Your task to perform on an android device: empty trash in the gmail app Image 0: 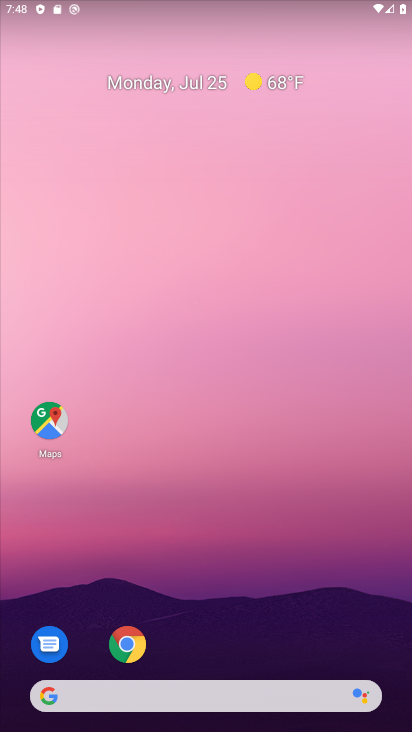
Step 0: click (280, 47)
Your task to perform on an android device: empty trash in the gmail app Image 1: 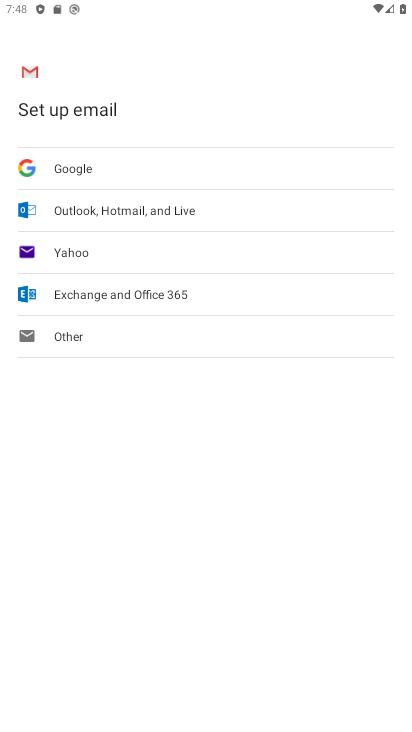
Step 1: press back button
Your task to perform on an android device: empty trash in the gmail app Image 2: 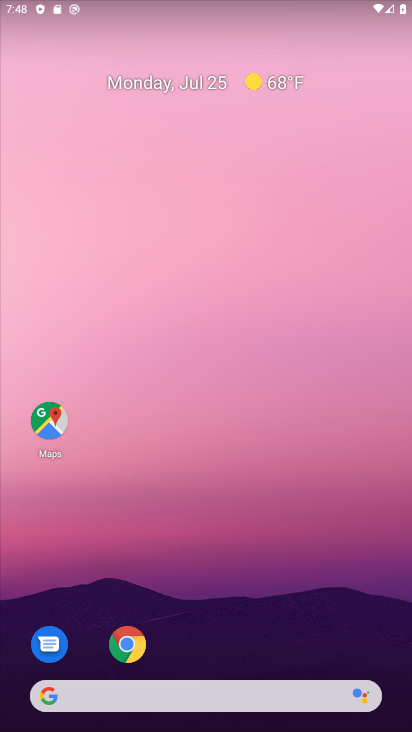
Step 2: drag from (203, 585) to (87, 13)
Your task to perform on an android device: empty trash in the gmail app Image 3: 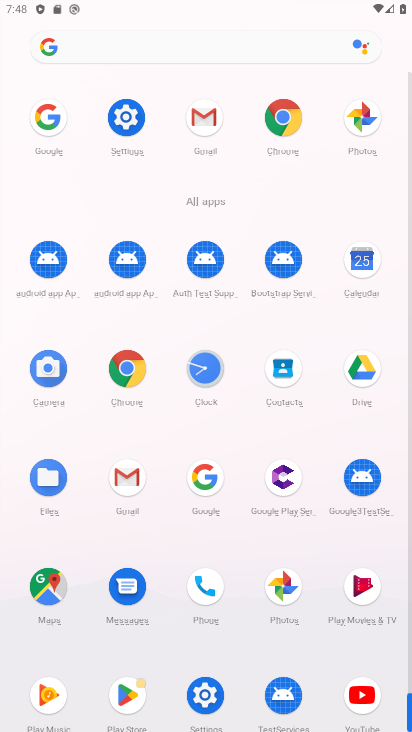
Step 3: click (128, 481)
Your task to perform on an android device: empty trash in the gmail app Image 4: 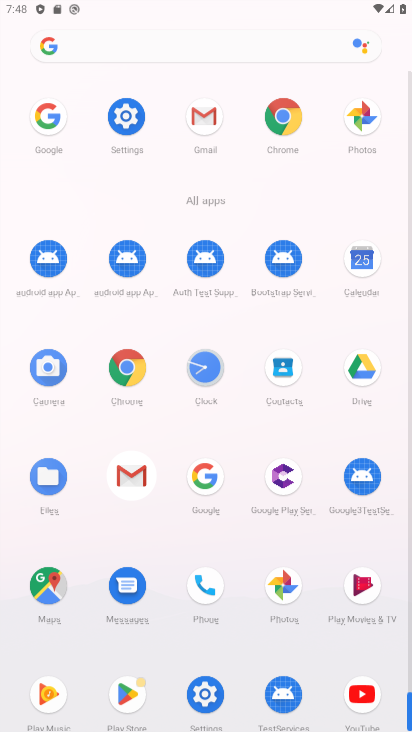
Step 4: click (128, 481)
Your task to perform on an android device: empty trash in the gmail app Image 5: 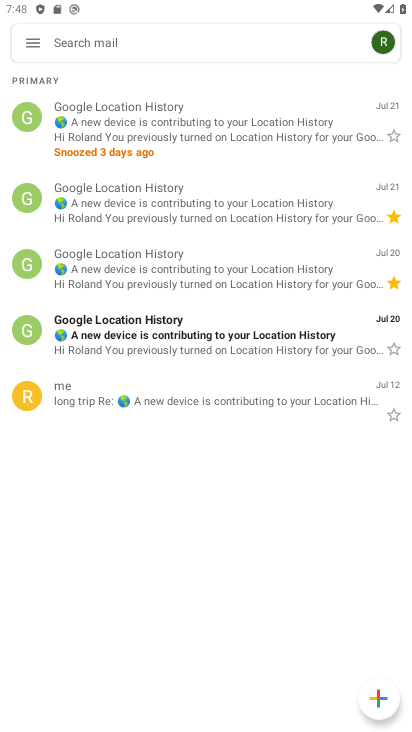
Step 5: click (34, 37)
Your task to perform on an android device: empty trash in the gmail app Image 6: 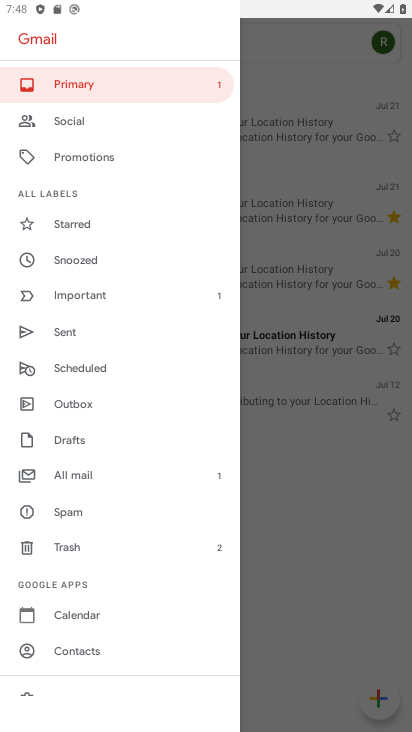
Step 6: click (57, 537)
Your task to perform on an android device: empty trash in the gmail app Image 7: 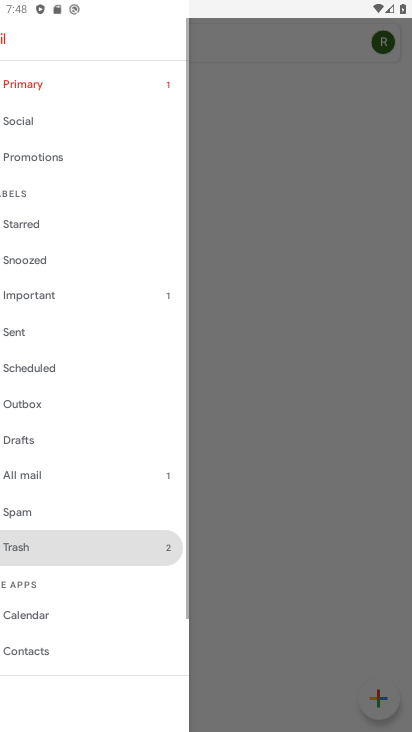
Step 7: click (66, 543)
Your task to perform on an android device: empty trash in the gmail app Image 8: 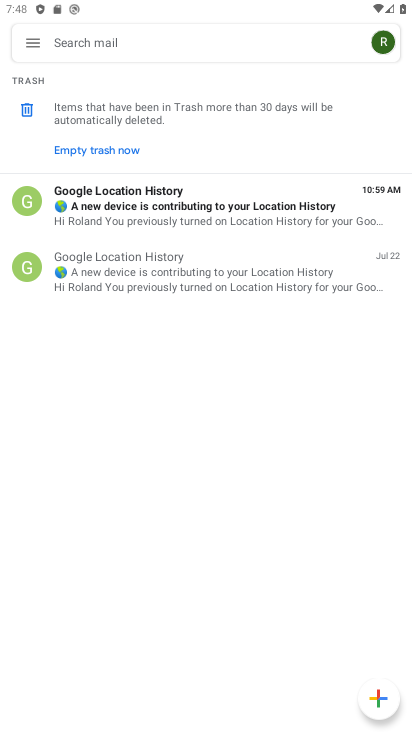
Step 8: click (104, 150)
Your task to perform on an android device: empty trash in the gmail app Image 9: 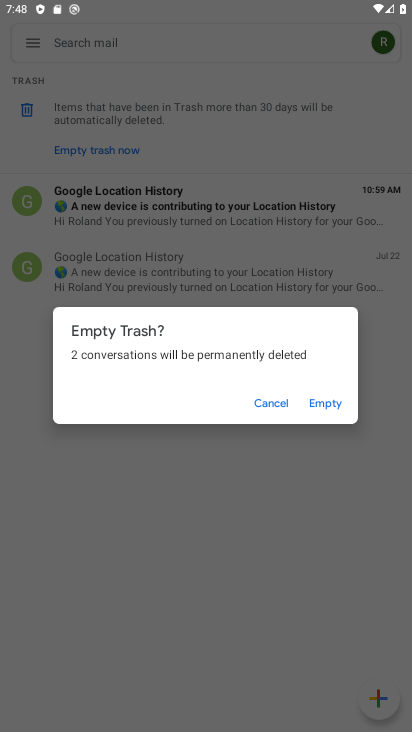
Step 9: click (323, 397)
Your task to perform on an android device: empty trash in the gmail app Image 10: 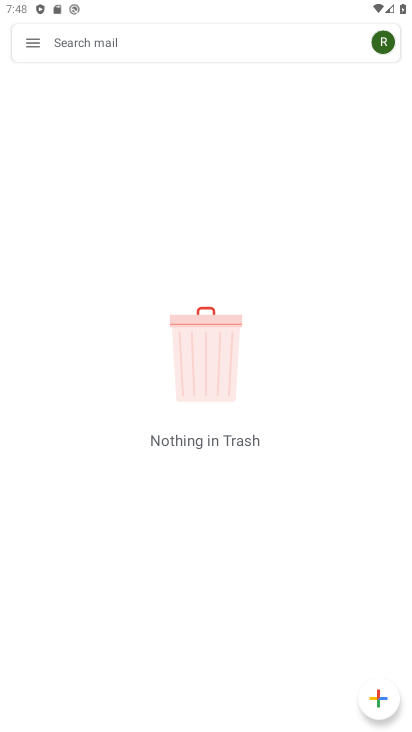
Step 10: task complete